Your task to perform on an android device: View the shopping cart on costco. Add "logitech g933" to the cart on costco, then select checkout. Image 0: 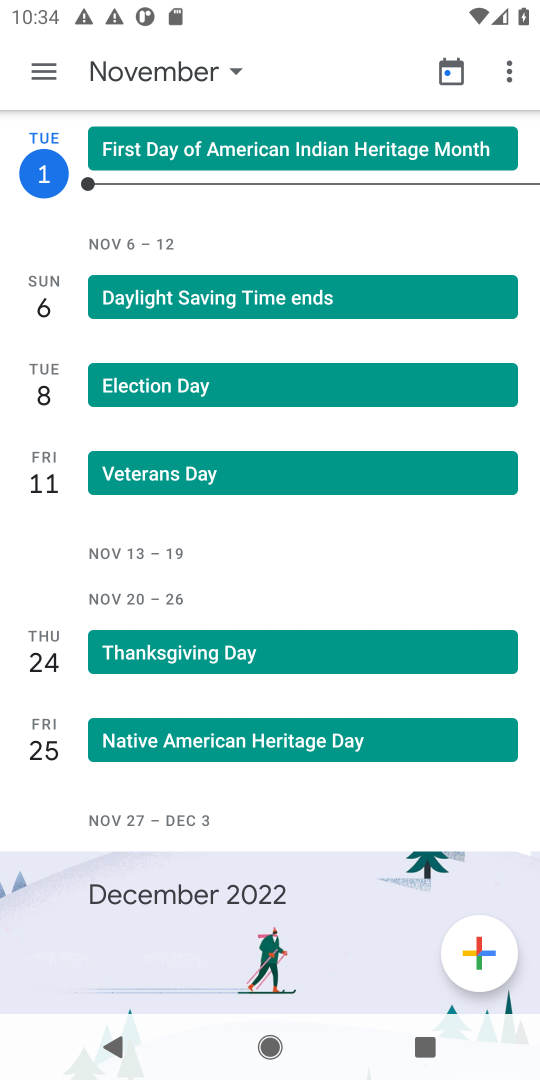
Step 0: press back button
Your task to perform on an android device: View the shopping cart on costco. Add "logitech g933" to the cart on costco, then select checkout. Image 1: 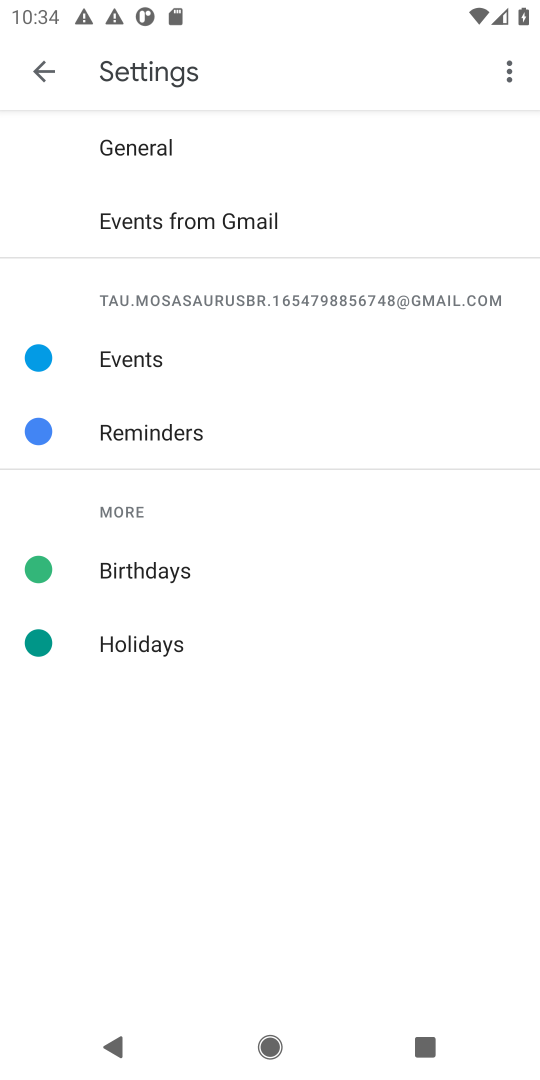
Step 1: press back button
Your task to perform on an android device: View the shopping cart on costco. Add "logitech g933" to the cart on costco, then select checkout. Image 2: 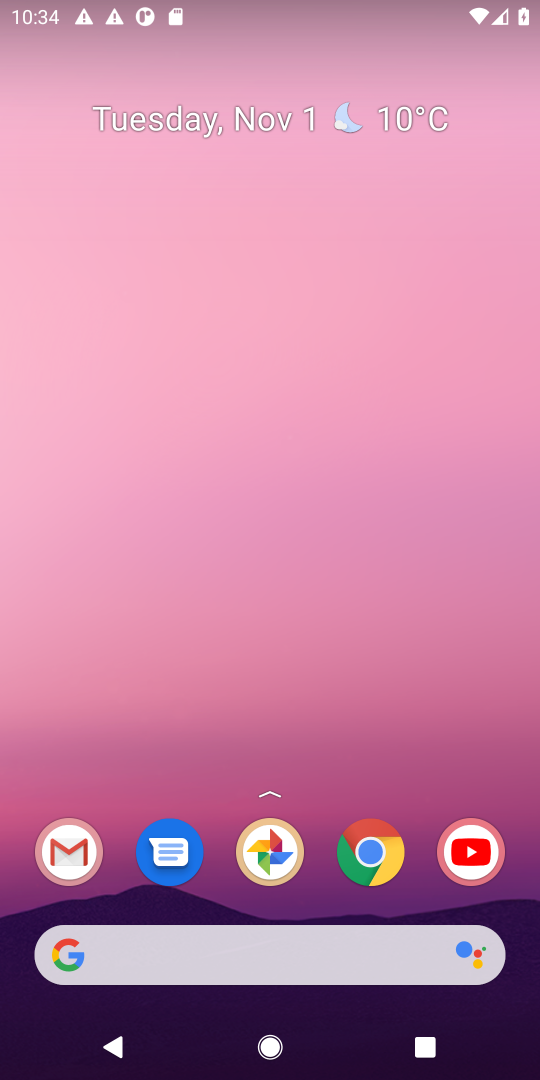
Step 2: click (67, 951)
Your task to perform on an android device: View the shopping cart on costco. Add "logitech g933" to the cart on costco, then select checkout. Image 3: 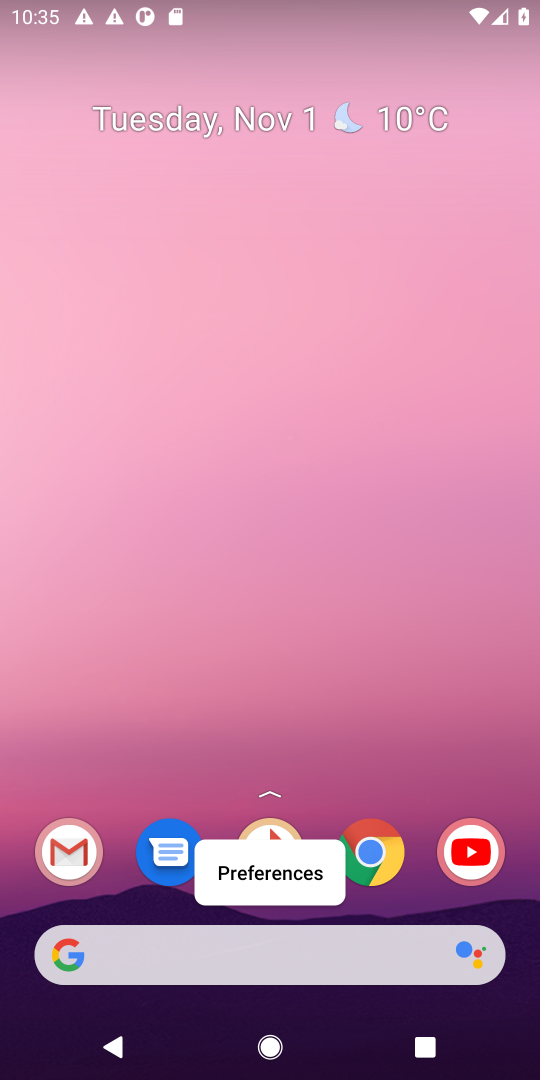
Step 3: click (75, 959)
Your task to perform on an android device: View the shopping cart on costco. Add "logitech g933" to the cart on costco, then select checkout. Image 4: 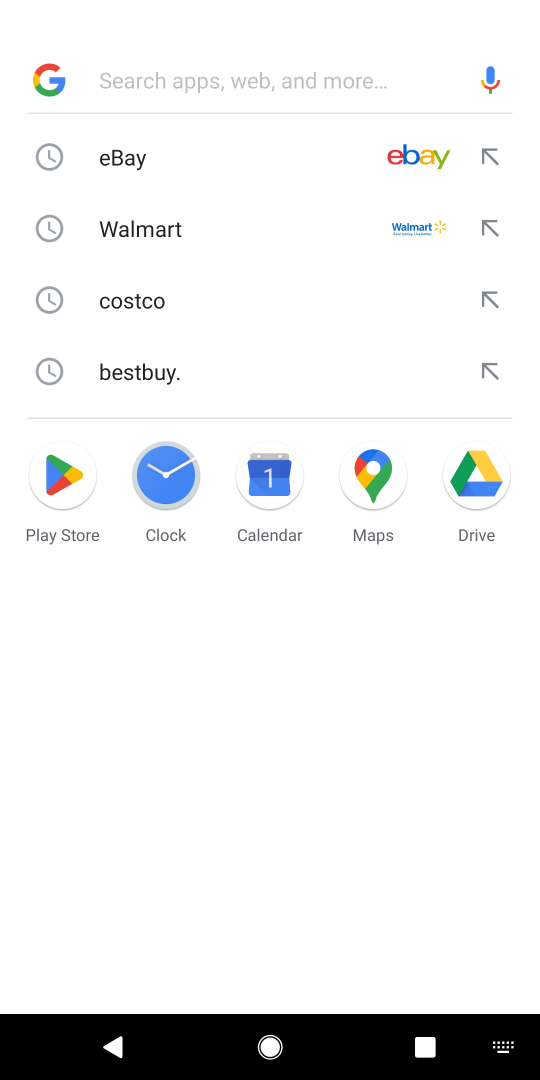
Step 4: click (118, 305)
Your task to perform on an android device: View the shopping cart on costco. Add "logitech g933" to the cart on costco, then select checkout. Image 5: 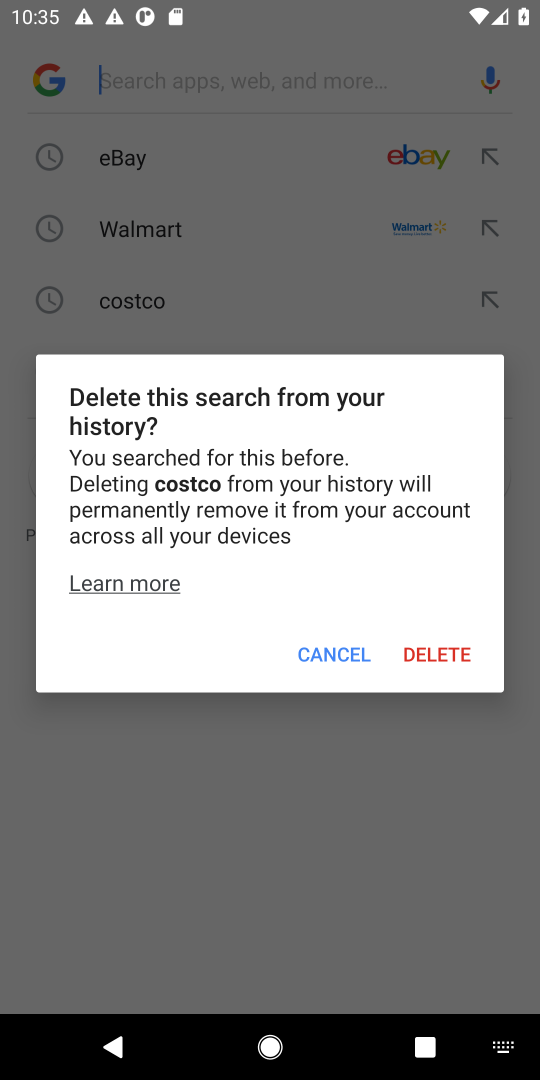
Step 5: click (332, 649)
Your task to perform on an android device: View the shopping cart on costco. Add "logitech g933" to the cart on costco, then select checkout. Image 6: 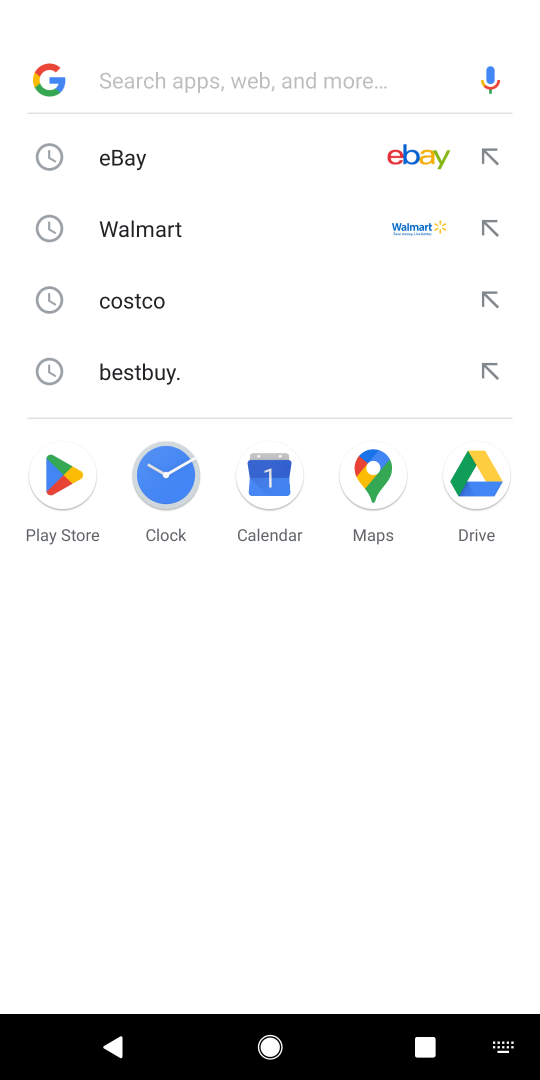
Step 6: type "logitech g933"
Your task to perform on an android device: View the shopping cart on costco. Add "logitech g933" to the cart on costco, then select checkout. Image 7: 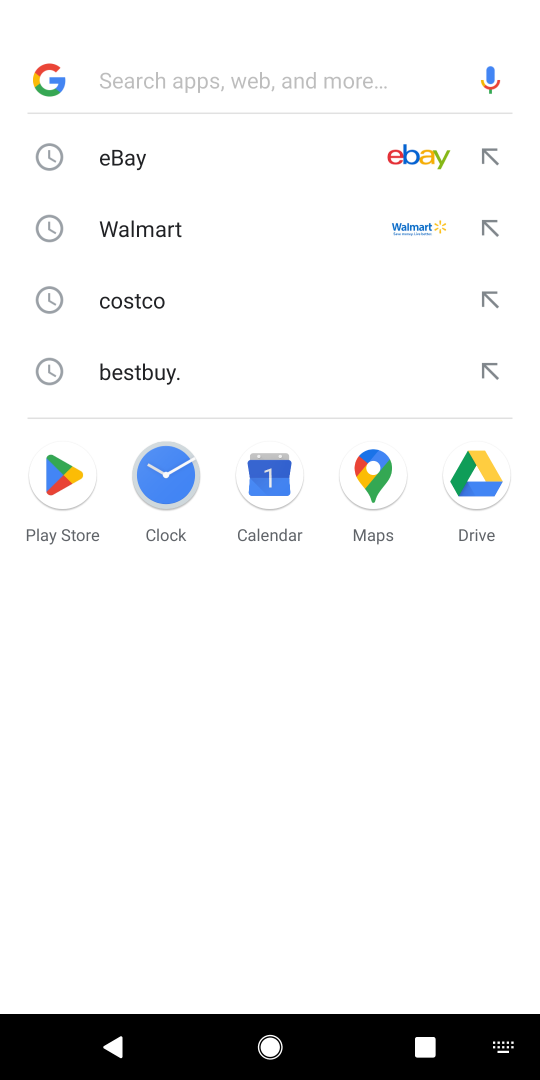
Step 7: click (156, 81)
Your task to perform on an android device: View the shopping cart on costco. Add "logitech g933" to the cart on costco, then select checkout. Image 8: 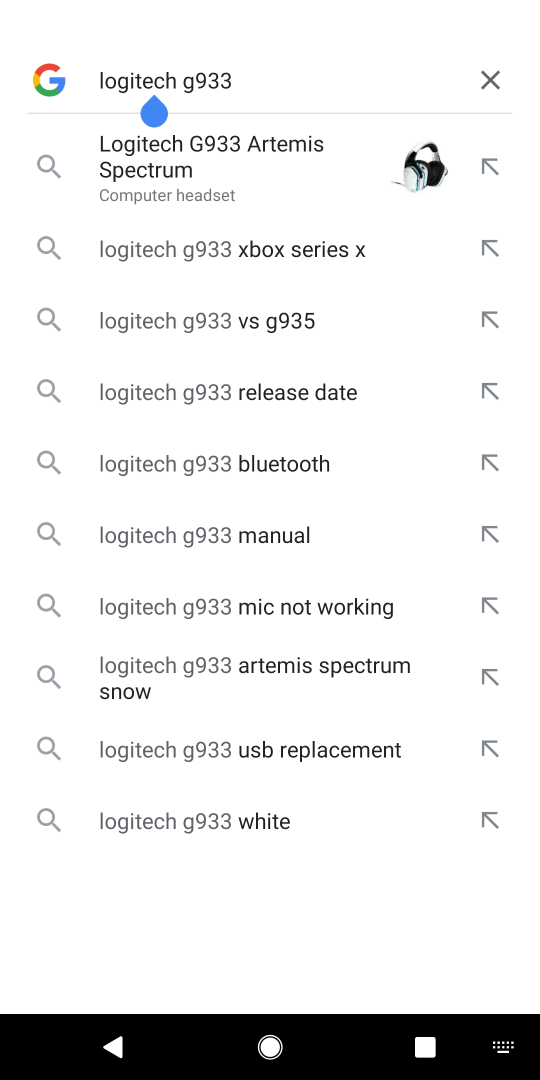
Step 8: press enter
Your task to perform on an android device: View the shopping cart on costco. Add "logitech g933" to the cart on costco, then select checkout. Image 9: 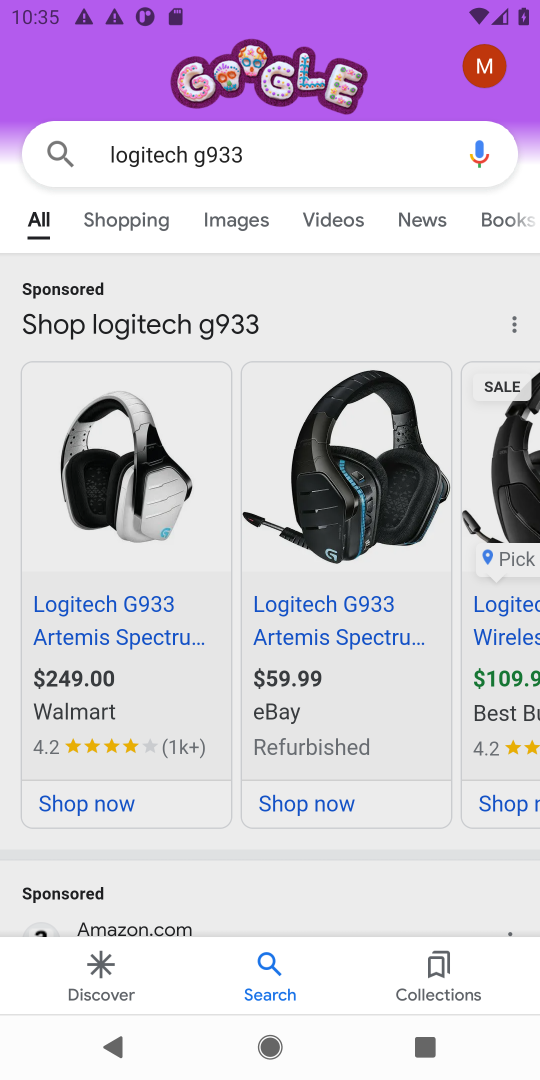
Step 9: drag from (243, 862) to (210, 406)
Your task to perform on an android device: View the shopping cart on costco. Add "logitech g933" to the cart on costco, then select checkout. Image 10: 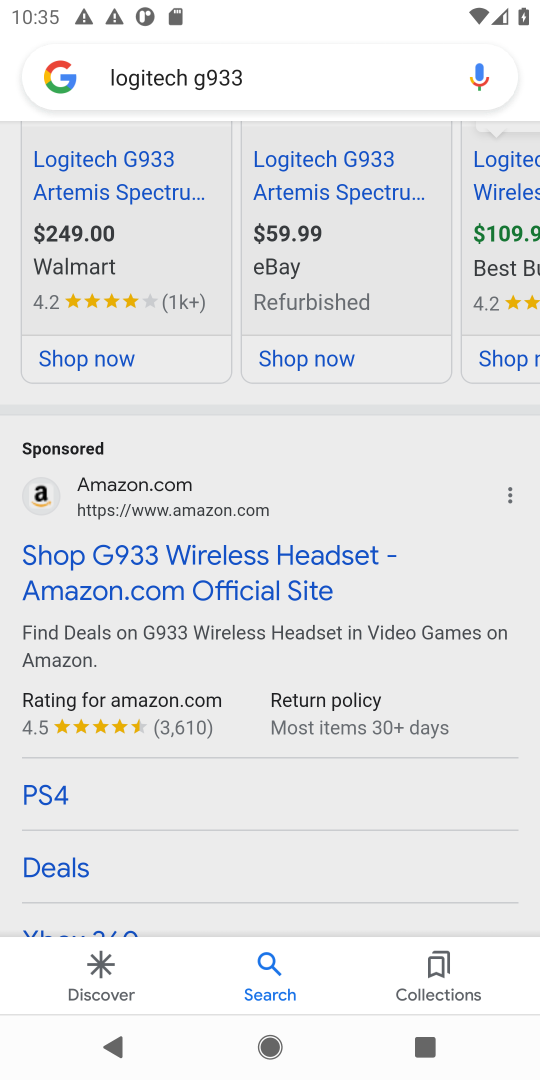
Step 10: click (150, 550)
Your task to perform on an android device: View the shopping cart on costco. Add "logitech g933" to the cart on costco, then select checkout. Image 11: 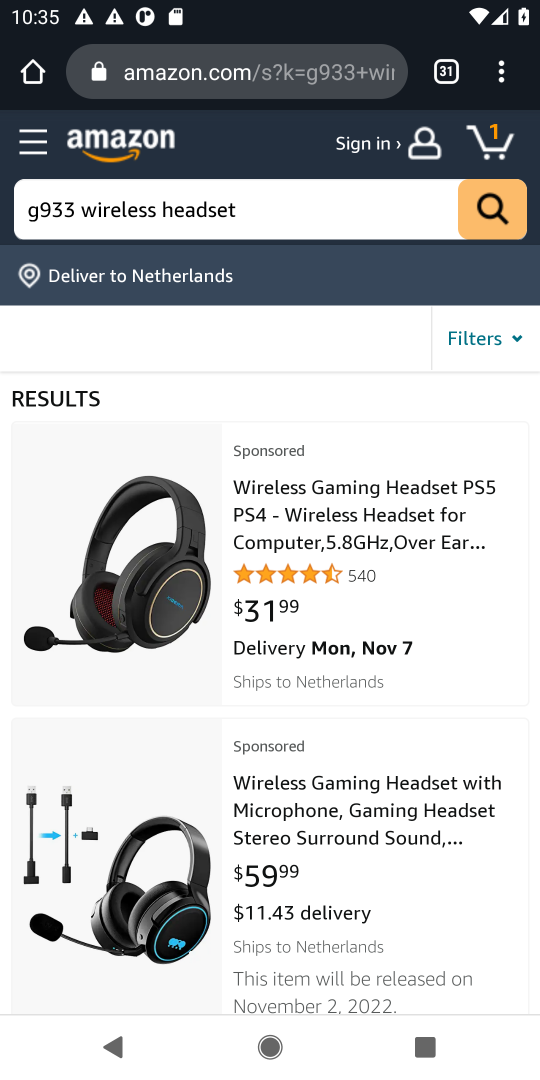
Step 11: press back button
Your task to perform on an android device: View the shopping cart on costco. Add "logitech g933" to the cart on costco, then select checkout. Image 12: 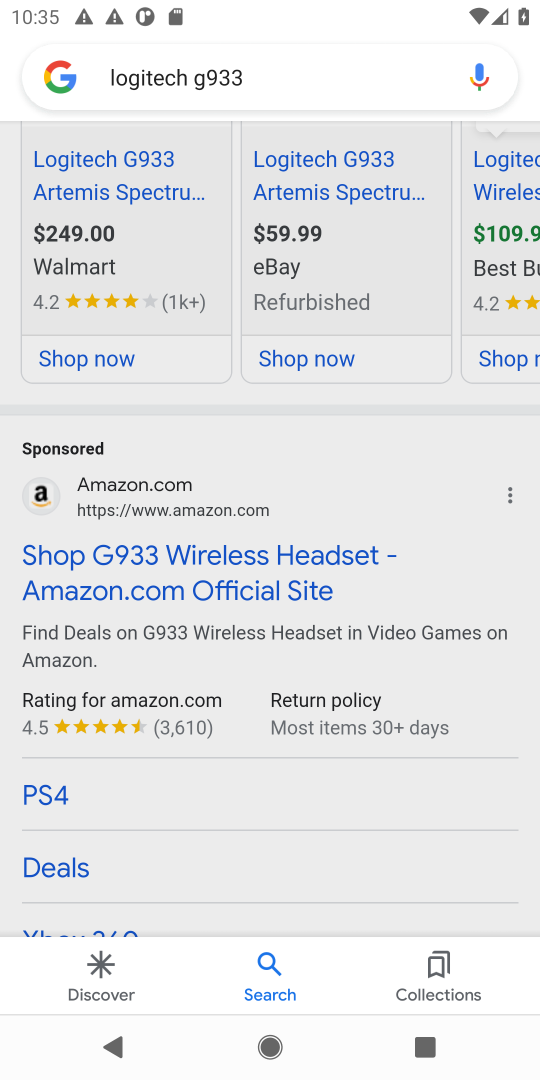
Step 12: press back button
Your task to perform on an android device: View the shopping cart on costco. Add "logitech g933" to the cart on costco, then select checkout. Image 13: 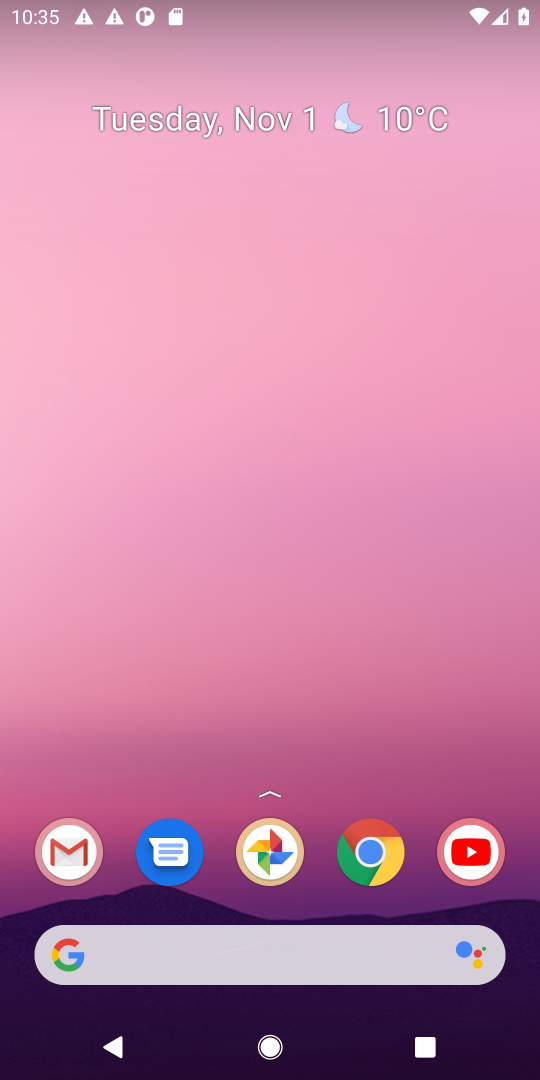
Step 13: click (67, 946)
Your task to perform on an android device: View the shopping cart on costco. Add "logitech g933" to the cart on costco, then select checkout. Image 14: 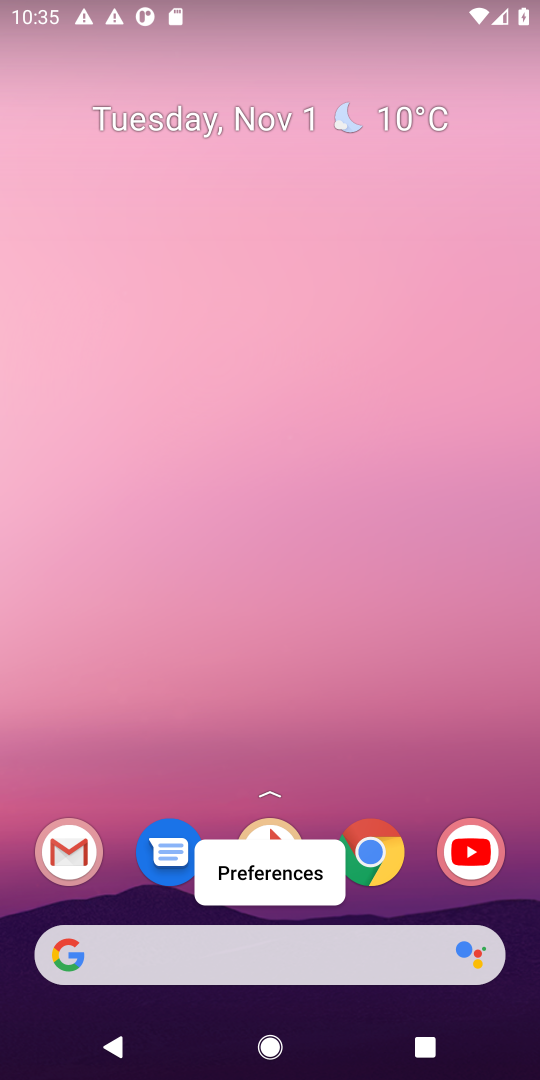
Step 14: click (63, 959)
Your task to perform on an android device: View the shopping cart on costco. Add "logitech g933" to the cart on costco, then select checkout. Image 15: 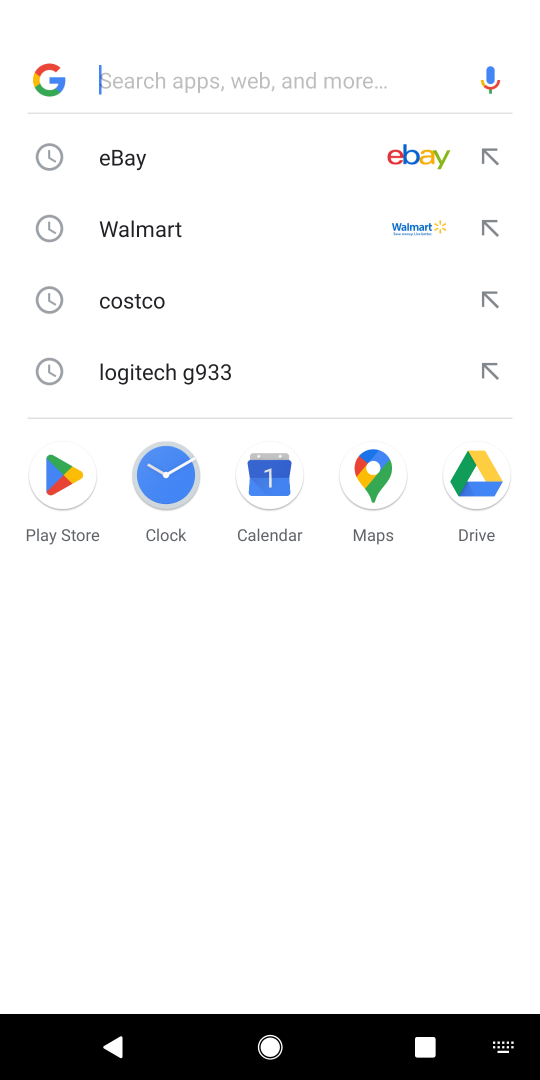
Step 15: click (124, 304)
Your task to perform on an android device: View the shopping cart on costco. Add "logitech g933" to the cart on costco, then select checkout. Image 16: 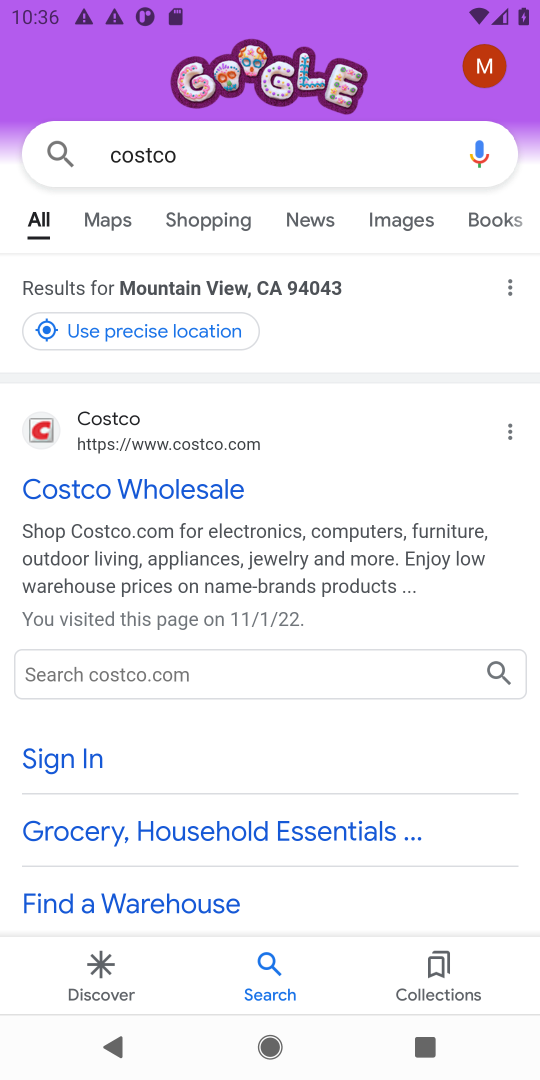
Step 16: click (210, 485)
Your task to perform on an android device: View the shopping cart on costco. Add "logitech g933" to the cart on costco, then select checkout. Image 17: 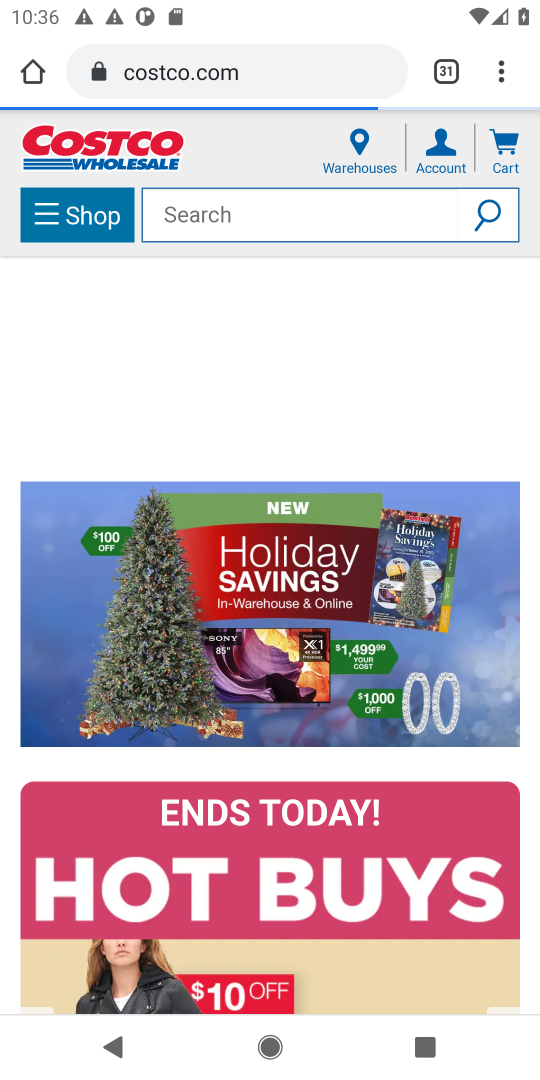
Step 17: click (289, 212)
Your task to perform on an android device: View the shopping cart on costco. Add "logitech g933" to the cart on costco, then select checkout. Image 18: 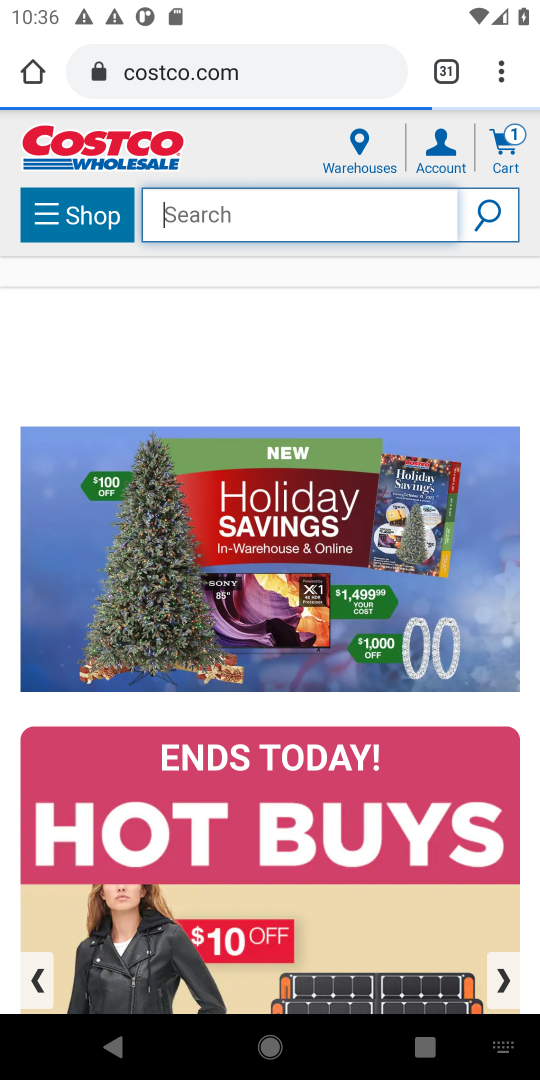
Step 18: type "logitech g933"
Your task to perform on an android device: View the shopping cart on costco. Add "logitech g933" to the cart on costco, then select checkout. Image 19: 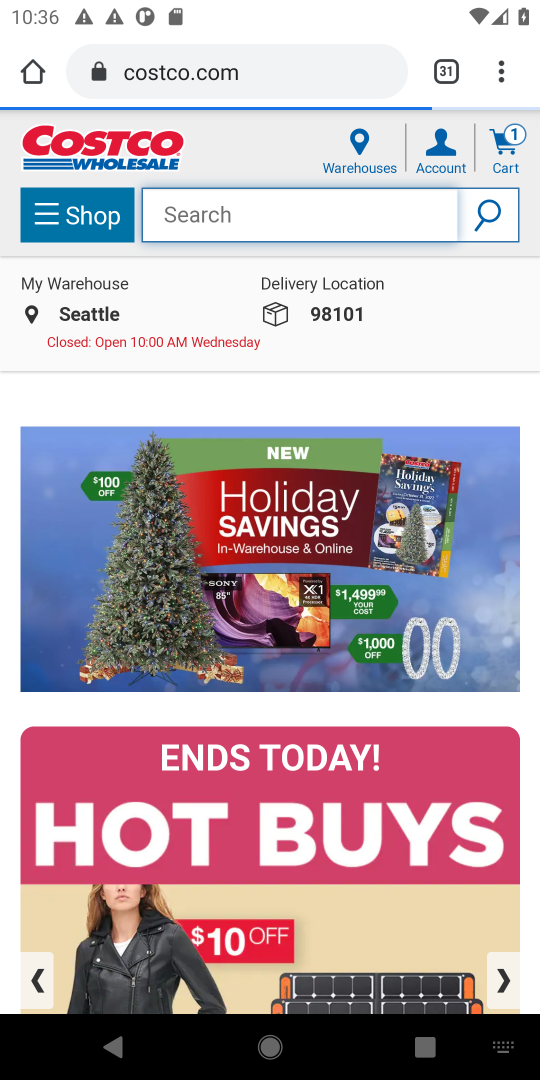
Step 19: click (219, 215)
Your task to perform on an android device: View the shopping cart on costco. Add "logitech g933" to the cart on costco, then select checkout. Image 20: 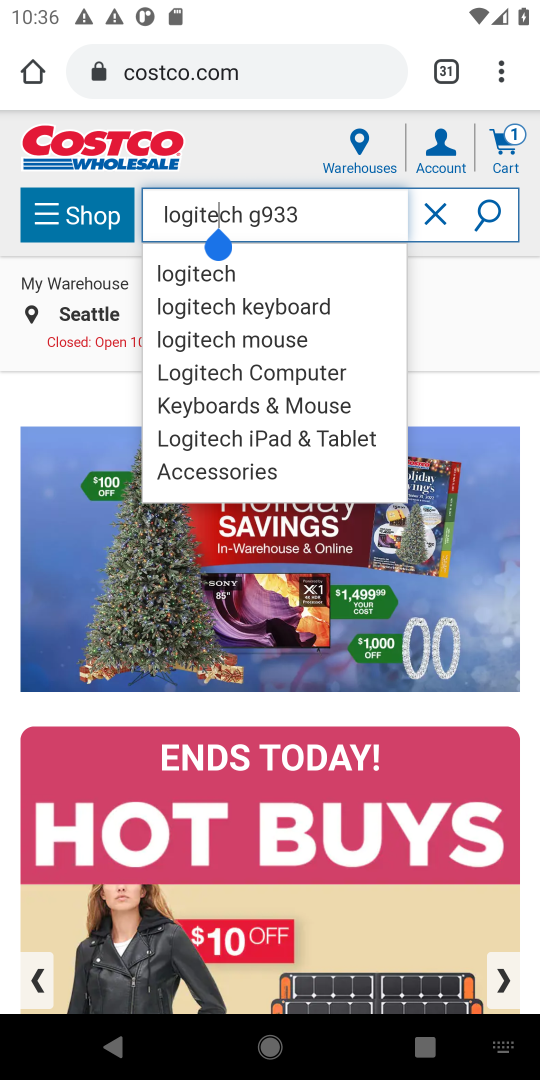
Step 20: press enter
Your task to perform on an android device: View the shopping cart on costco. Add "logitech g933" to the cart on costco, then select checkout. Image 21: 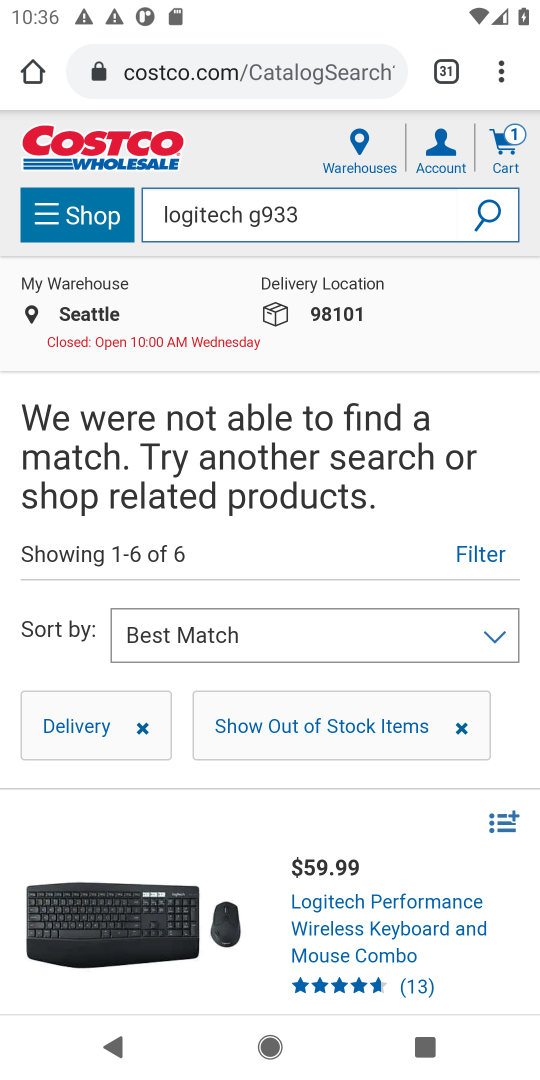
Step 21: drag from (420, 867) to (436, 302)
Your task to perform on an android device: View the shopping cart on costco. Add "logitech g933" to the cart on costco, then select checkout. Image 22: 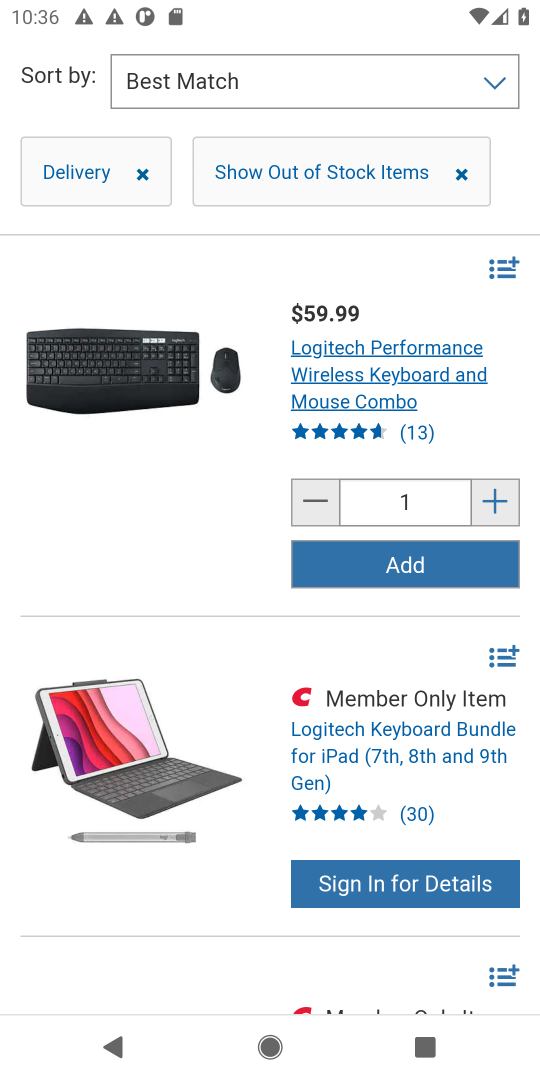
Step 22: drag from (442, 953) to (428, 335)
Your task to perform on an android device: View the shopping cart on costco. Add "logitech g933" to the cart on costco, then select checkout. Image 23: 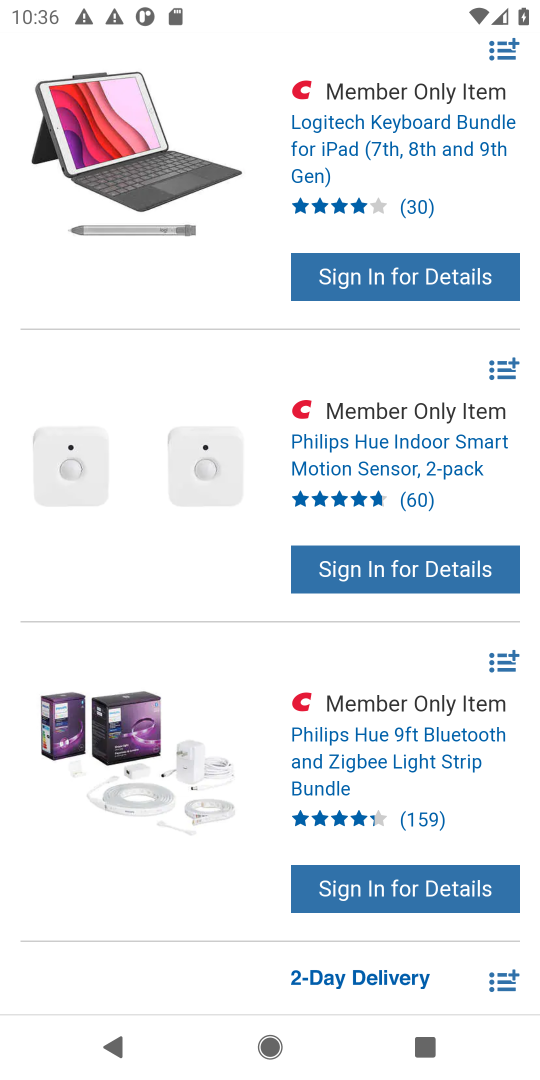
Step 23: drag from (404, 950) to (448, 327)
Your task to perform on an android device: View the shopping cart on costco. Add "logitech g933" to the cart on costco, then select checkout. Image 24: 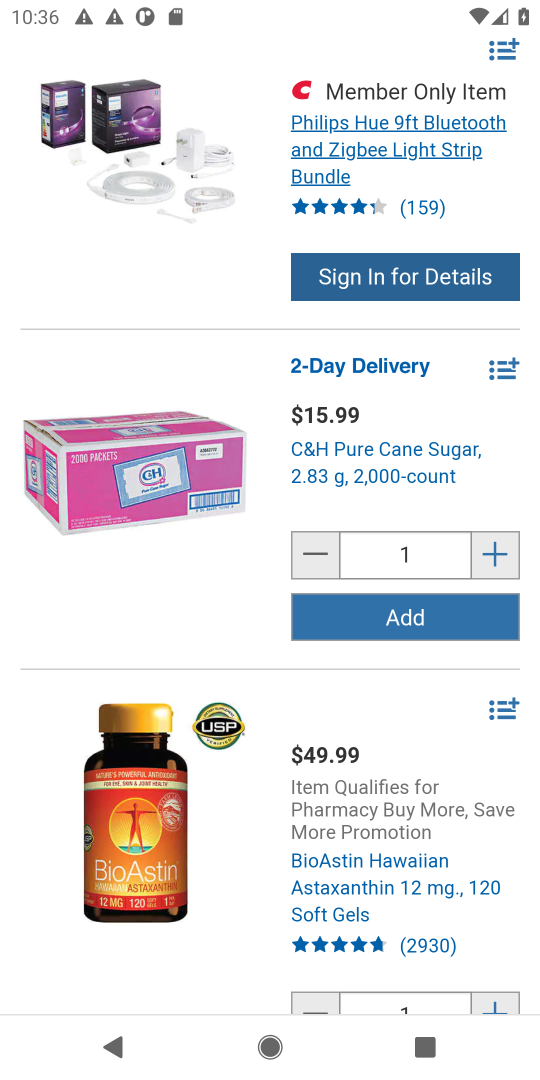
Step 24: drag from (229, 113) to (209, 1036)
Your task to perform on an android device: View the shopping cart on costco. Add "logitech g933" to the cart on costco, then select checkout. Image 25: 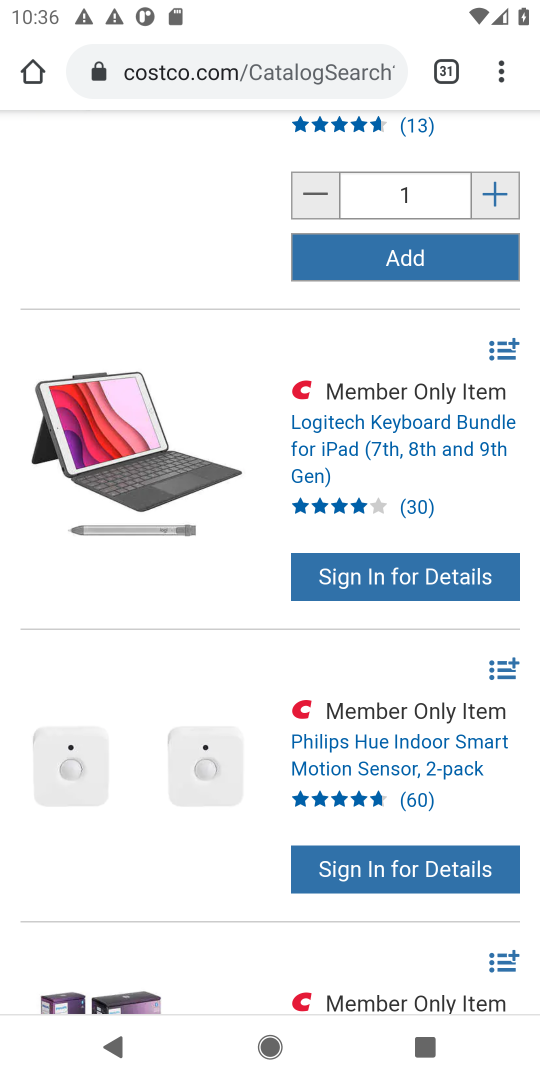
Step 25: drag from (224, 222) to (232, 1075)
Your task to perform on an android device: View the shopping cart on costco. Add "logitech g933" to the cart on costco, then select checkout. Image 26: 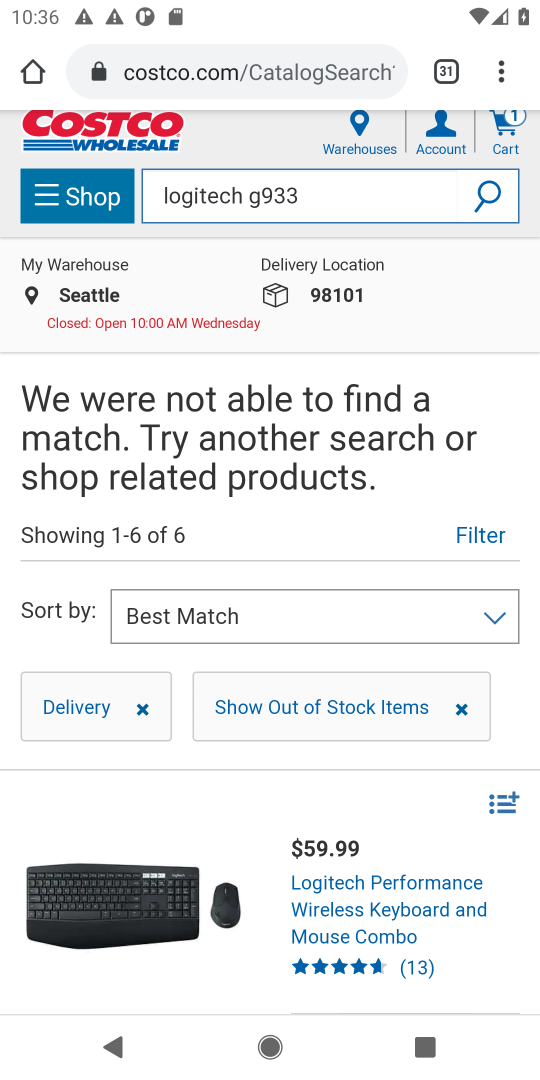
Step 26: click (479, 192)
Your task to perform on an android device: View the shopping cart on costco. Add "logitech g933" to the cart on costco, then select checkout. Image 27: 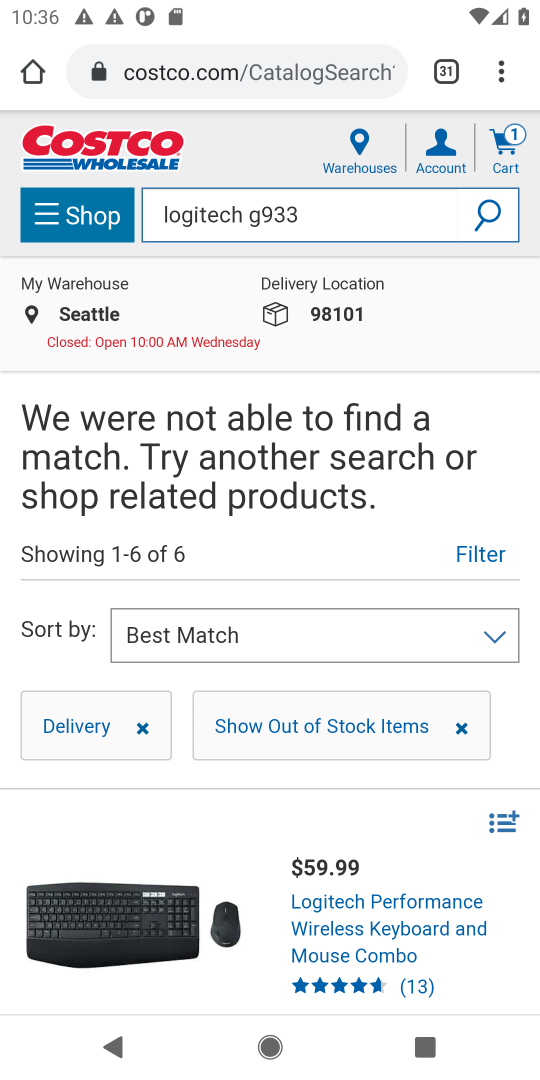
Step 27: task complete